Your task to perform on an android device: toggle airplane mode Image 0: 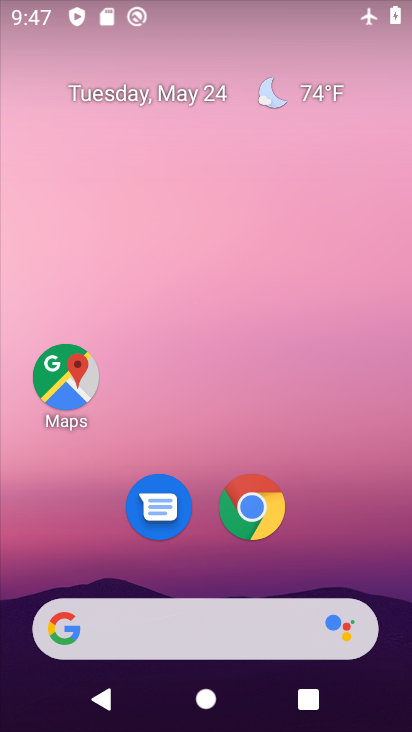
Step 0: drag from (227, 715) to (167, 63)
Your task to perform on an android device: toggle airplane mode Image 1: 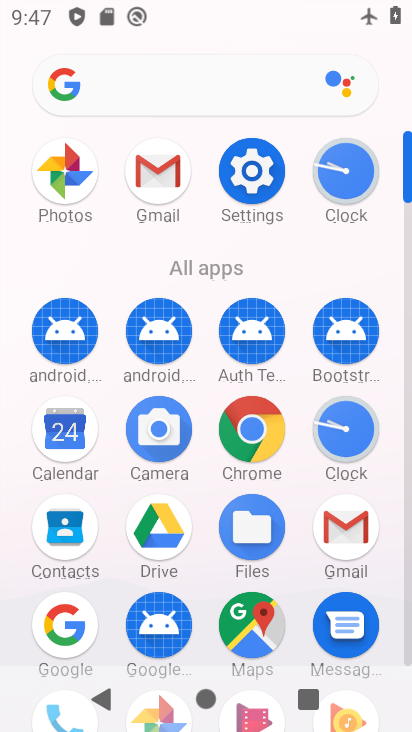
Step 1: click (237, 166)
Your task to perform on an android device: toggle airplane mode Image 2: 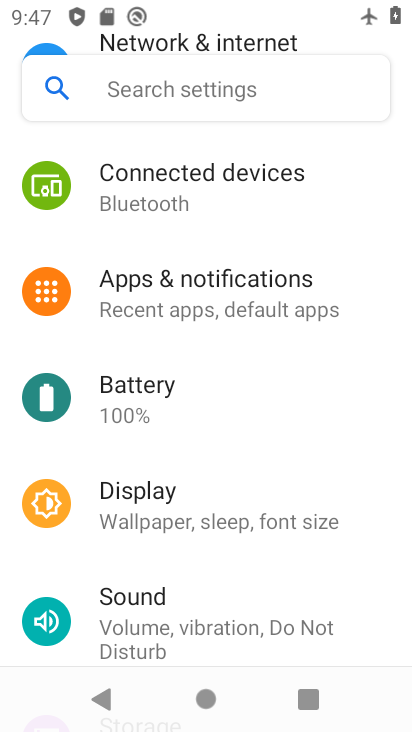
Step 2: drag from (225, 136) to (244, 542)
Your task to perform on an android device: toggle airplane mode Image 3: 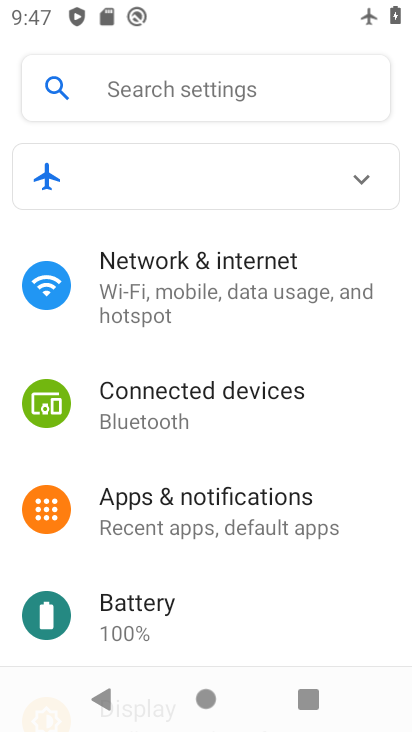
Step 3: drag from (194, 590) to (179, 187)
Your task to perform on an android device: toggle airplane mode Image 4: 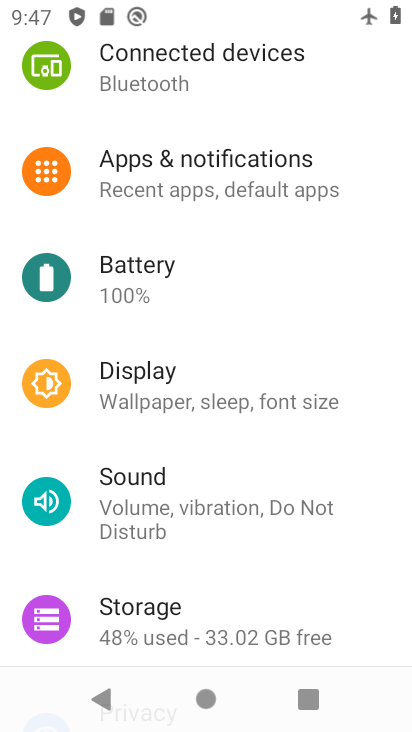
Step 4: drag from (176, 227) to (206, 564)
Your task to perform on an android device: toggle airplane mode Image 5: 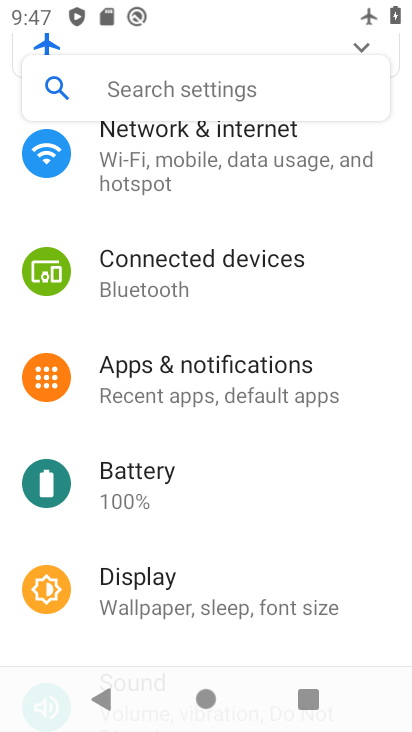
Step 5: click (167, 161)
Your task to perform on an android device: toggle airplane mode Image 6: 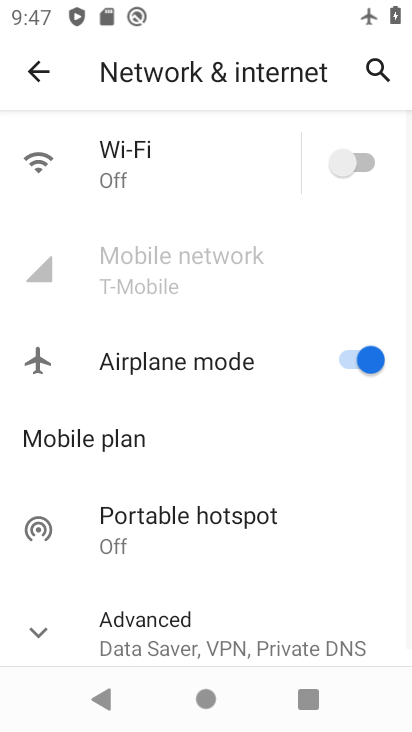
Step 6: click (345, 362)
Your task to perform on an android device: toggle airplane mode Image 7: 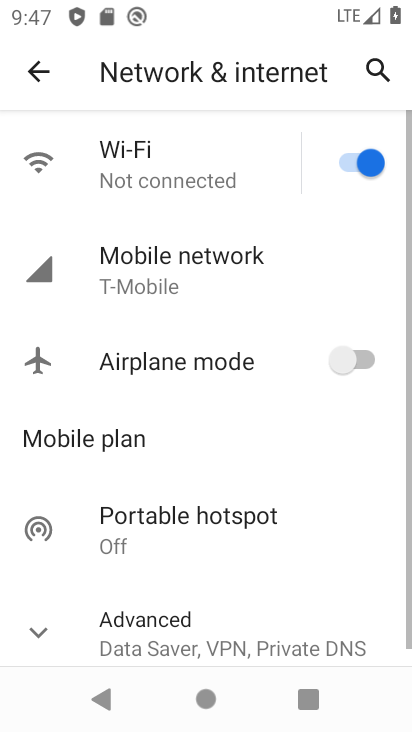
Step 7: task complete